Your task to perform on an android device: set the stopwatch Image 0: 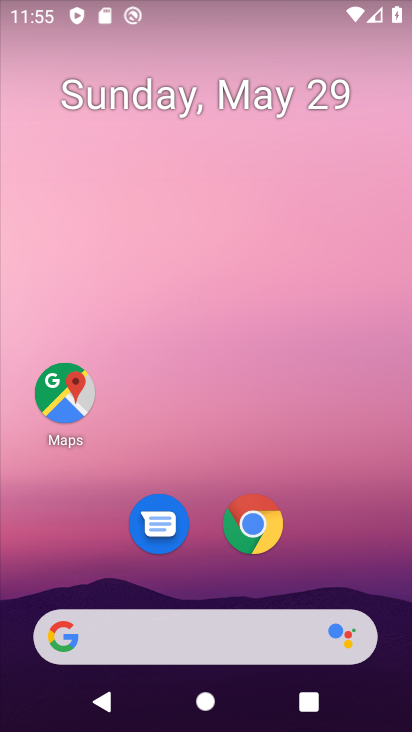
Step 0: drag from (229, 440) to (255, 6)
Your task to perform on an android device: set the stopwatch Image 1: 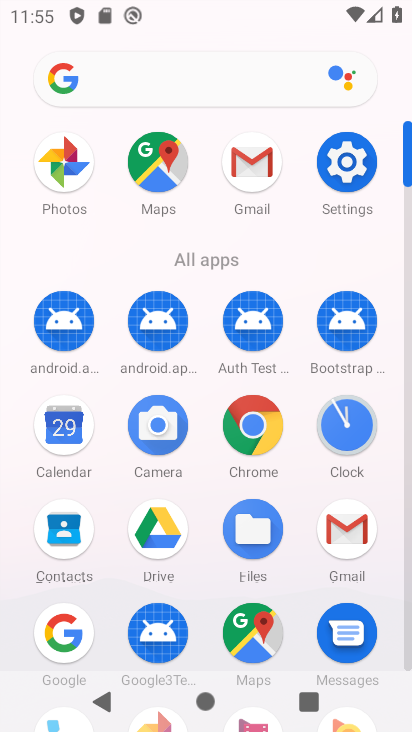
Step 1: click (347, 434)
Your task to perform on an android device: set the stopwatch Image 2: 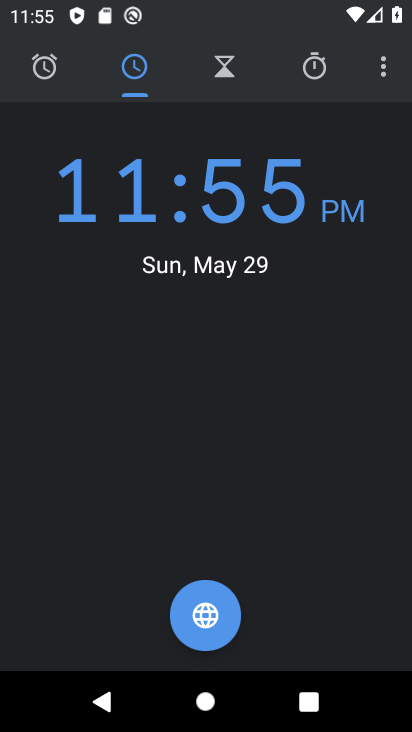
Step 2: click (316, 65)
Your task to perform on an android device: set the stopwatch Image 3: 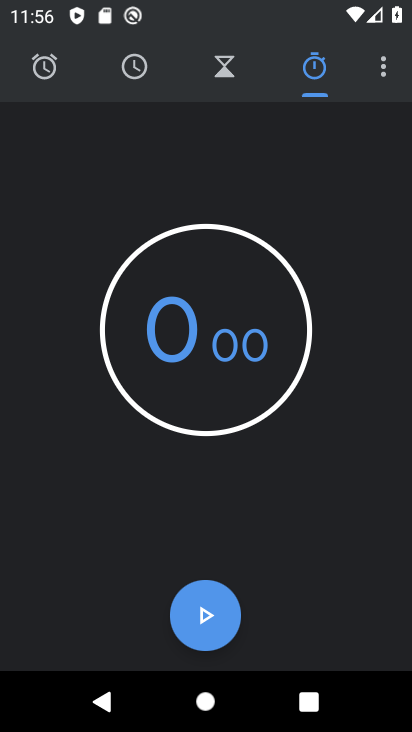
Step 3: task complete